Your task to perform on an android device: Show the shopping cart on bestbuy. Image 0: 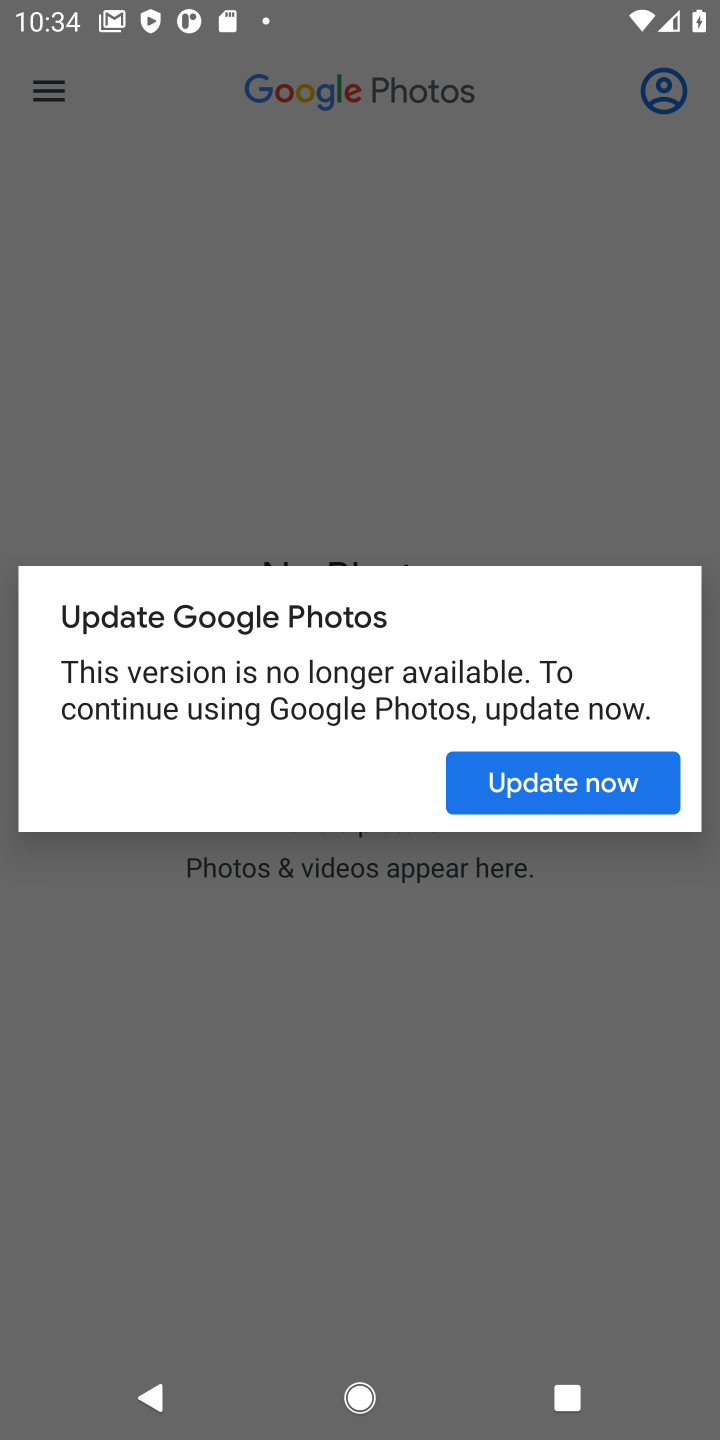
Step 0: press home button
Your task to perform on an android device: Show the shopping cart on bestbuy. Image 1: 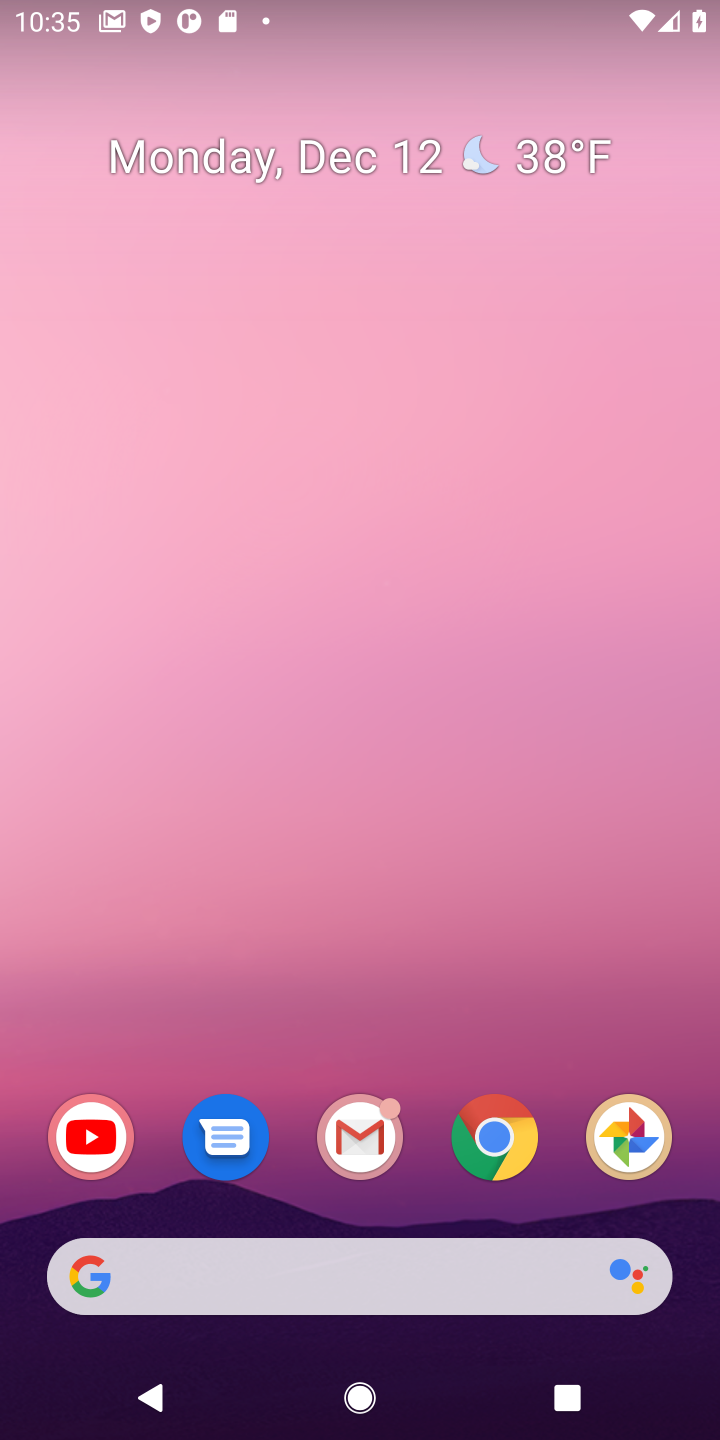
Step 1: click (380, 1300)
Your task to perform on an android device: Show the shopping cart on bestbuy. Image 2: 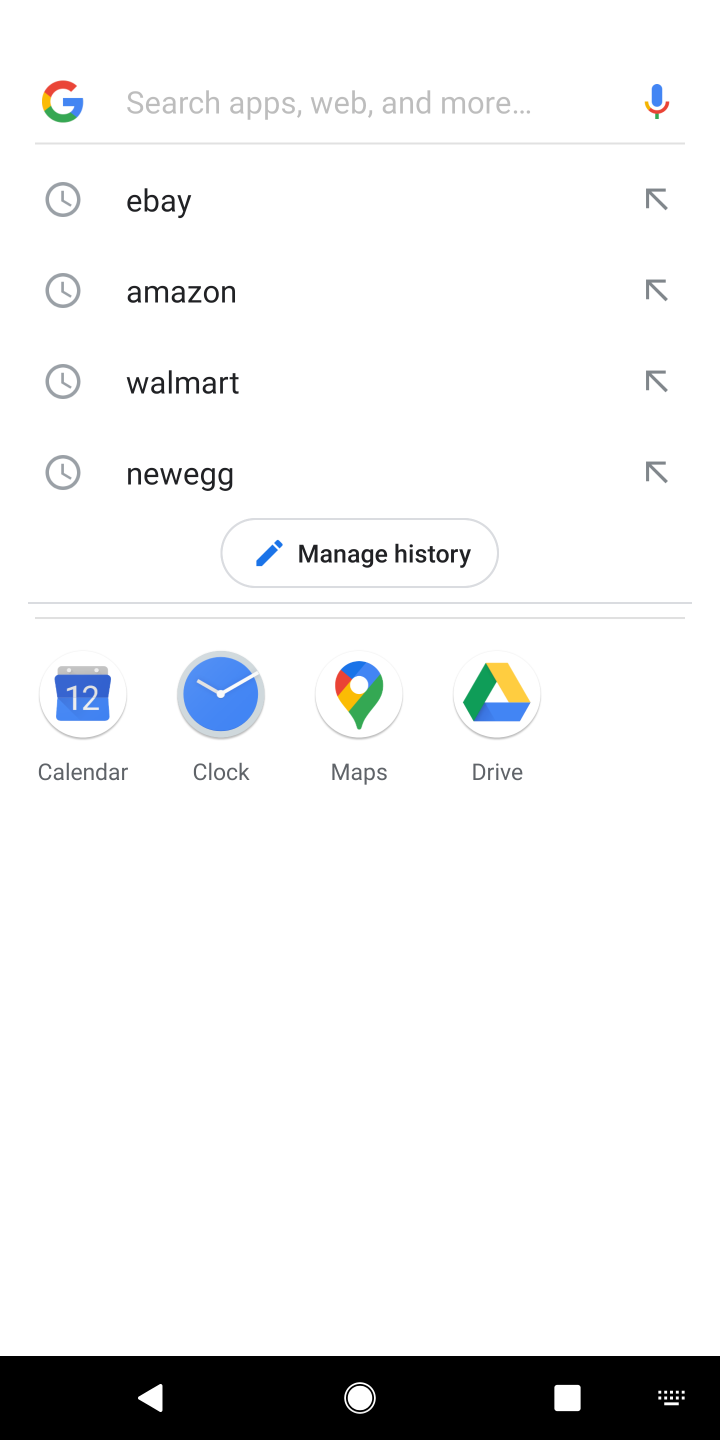
Step 2: type "bestbuy"
Your task to perform on an android device: Show the shopping cart on bestbuy. Image 3: 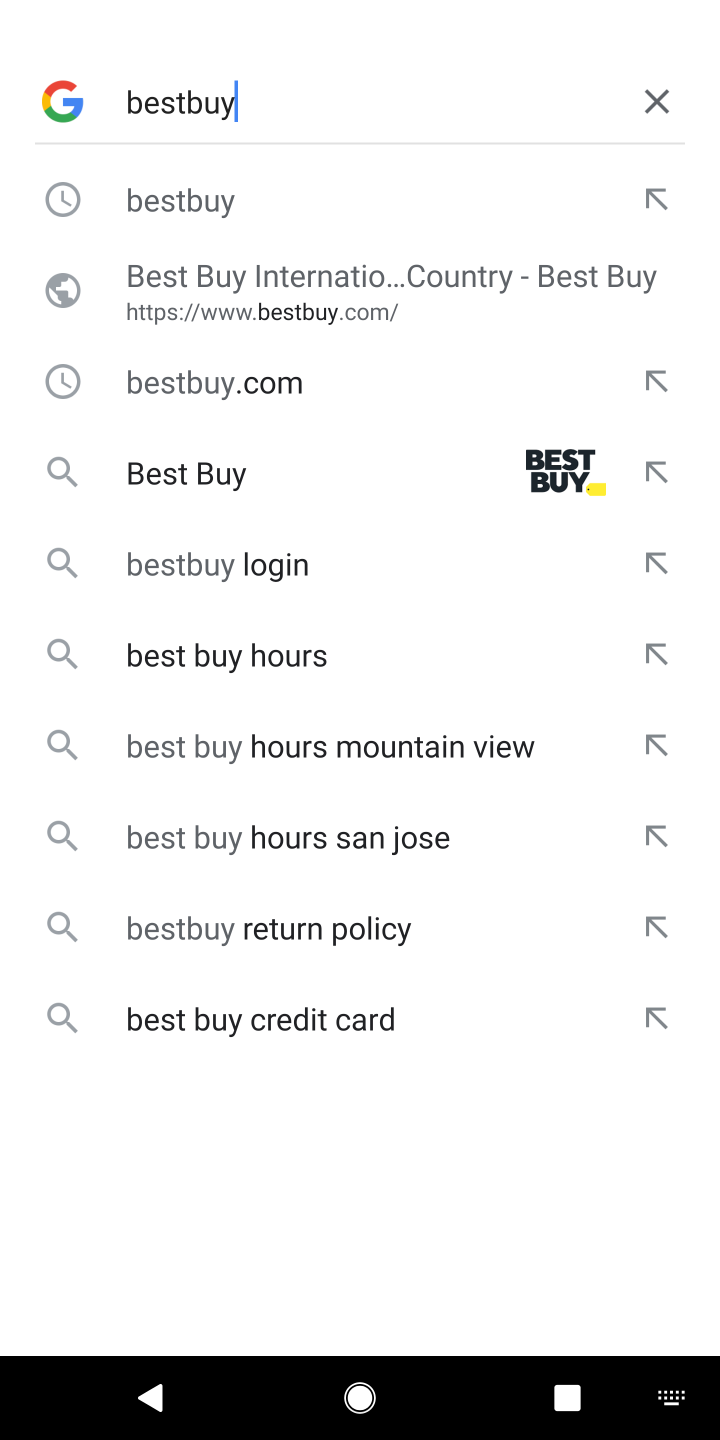
Step 3: click (222, 469)
Your task to perform on an android device: Show the shopping cart on bestbuy. Image 4: 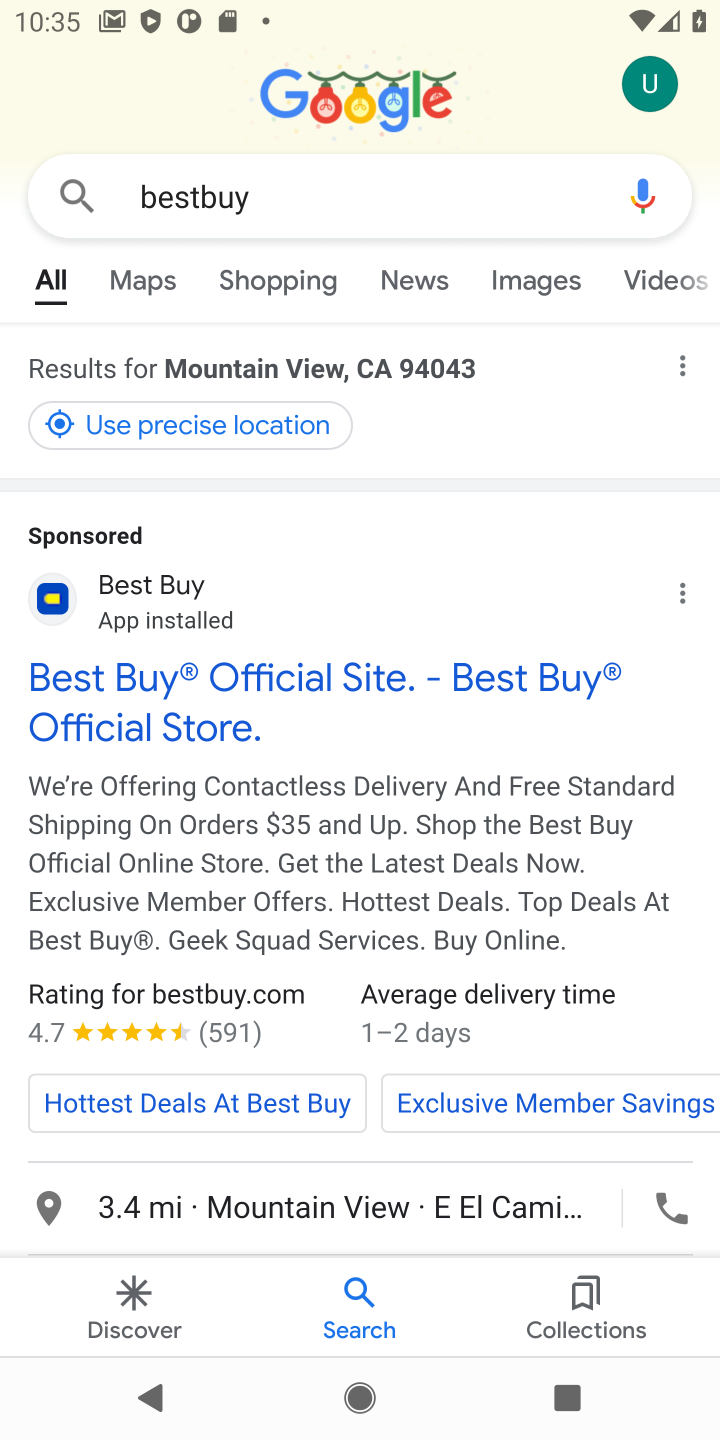
Step 4: click (160, 741)
Your task to perform on an android device: Show the shopping cart on bestbuy. Image 5: 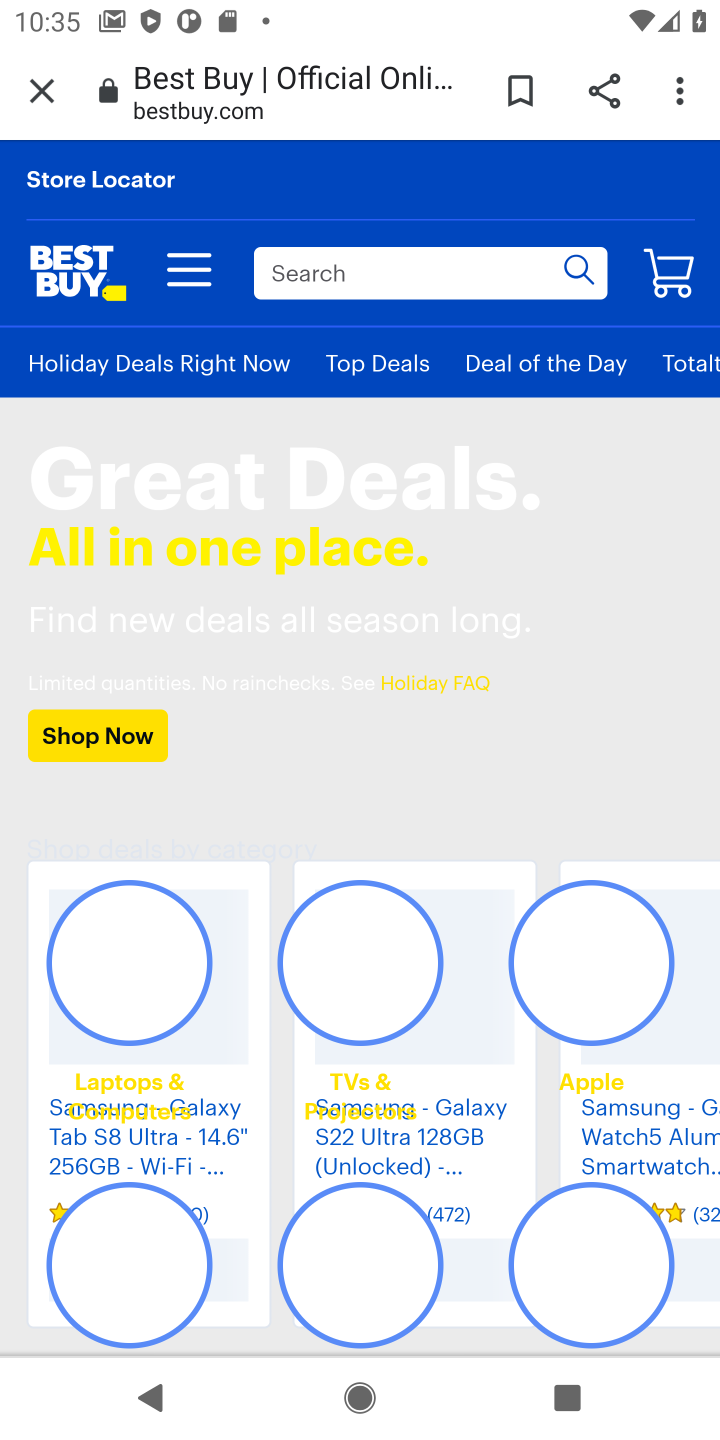
Step 5: click (382, 284)
Your task to perform on an android device: Show the shopping cart on bestbuy. Image 6: 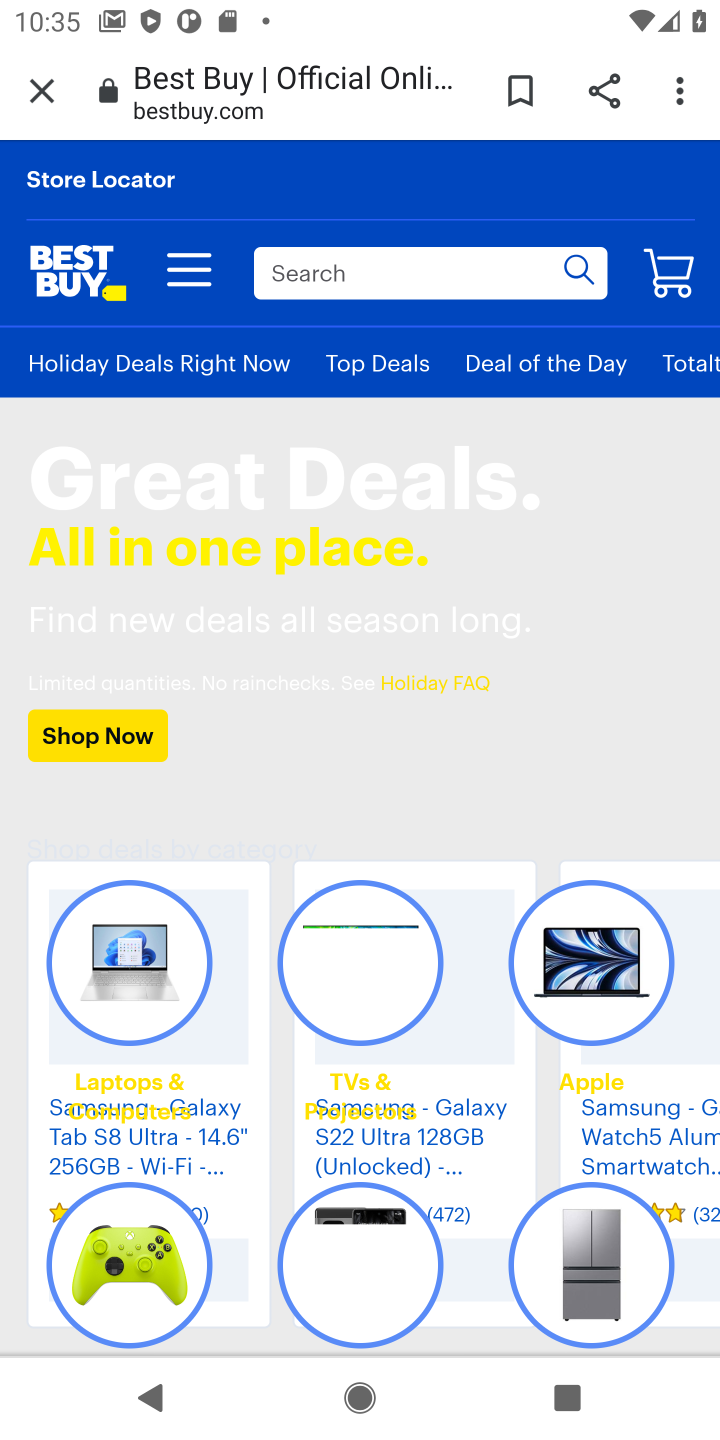
Step 6: click (650, 293)
Your task to perform on an android device: Show the shopping cart on bestbuy. Image 7: 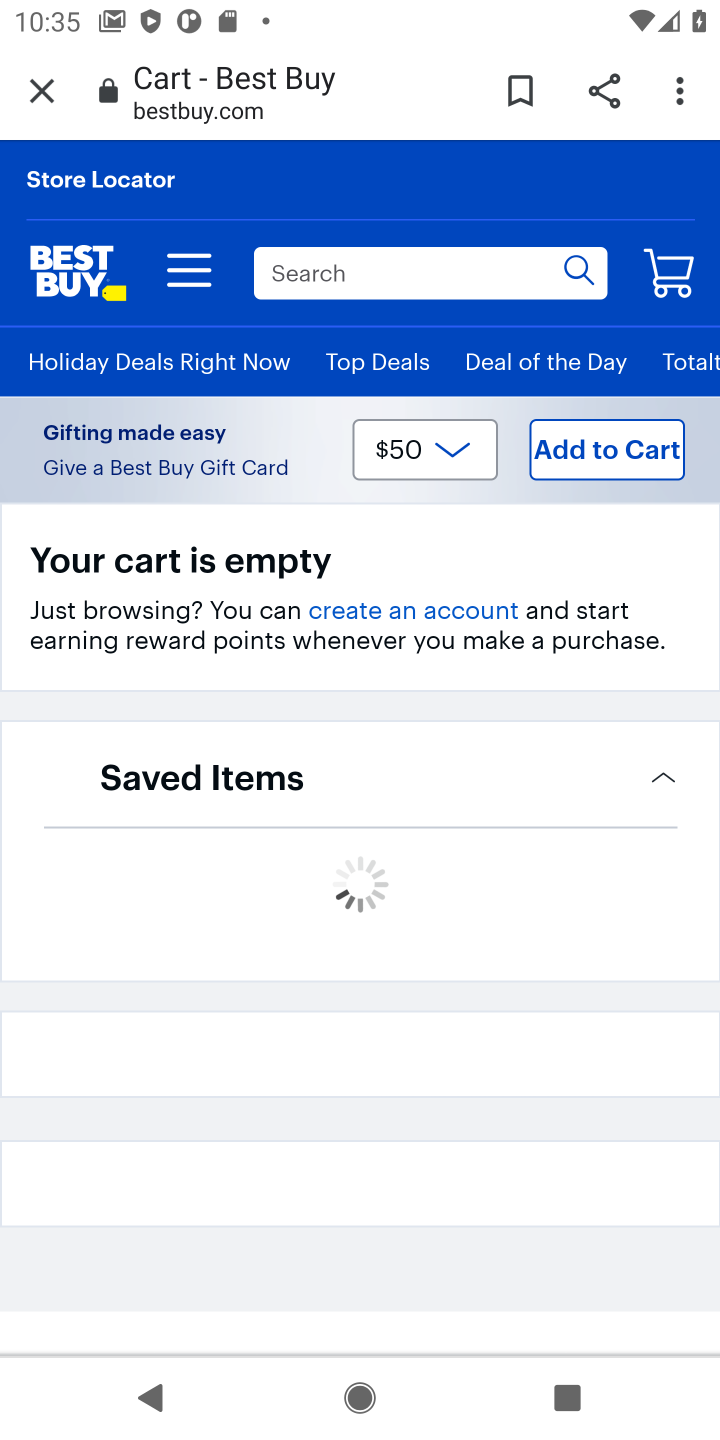
Step 7: click (663, 282)
Your task to perform on an android device: Show the shopping cart on bestbuy. Image 8: 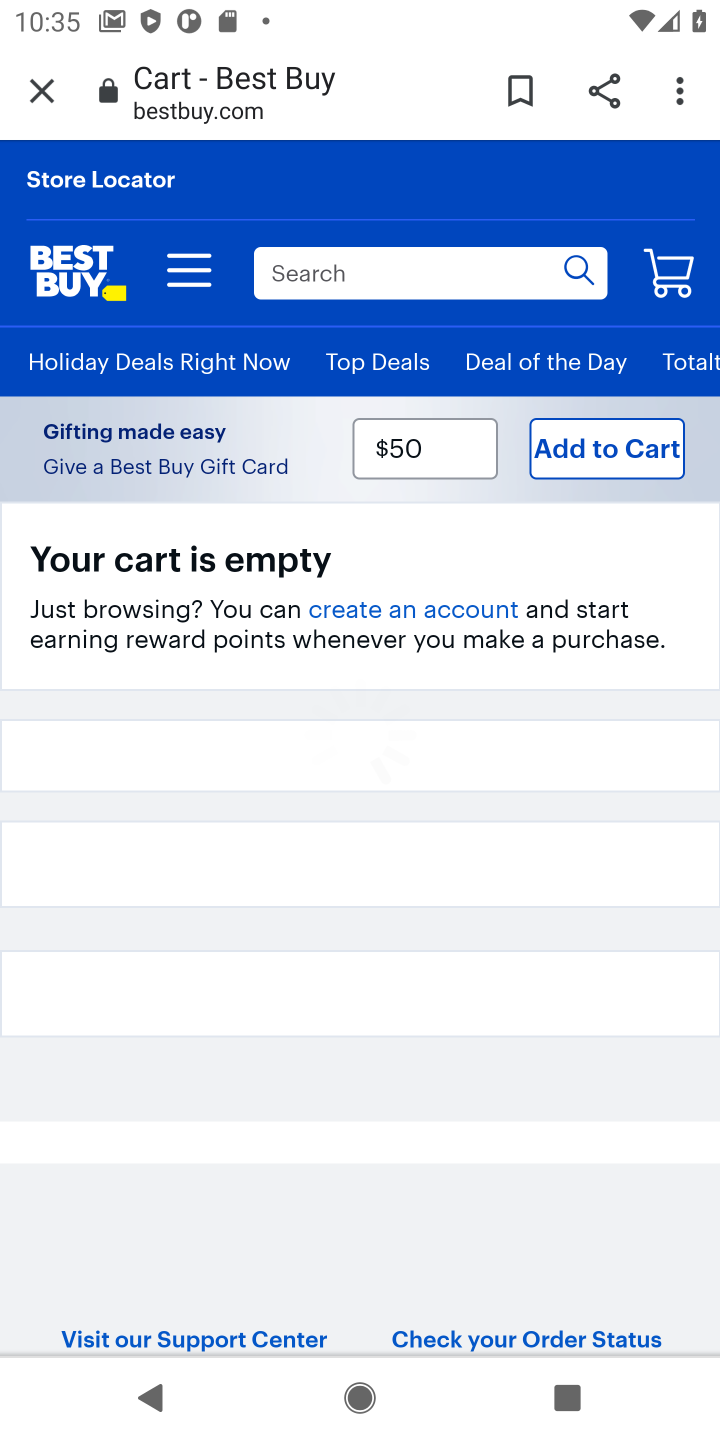
Step 8: task complete